Your task to perform on an android device: turn on translation in the chrome app Image 0: 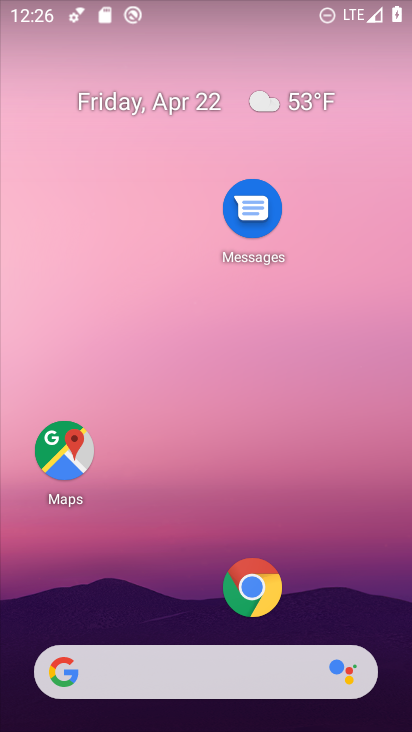
Step 0: click (240, 585)
Your task to perform on an android device: turn on translation in the chrome app Image 1: 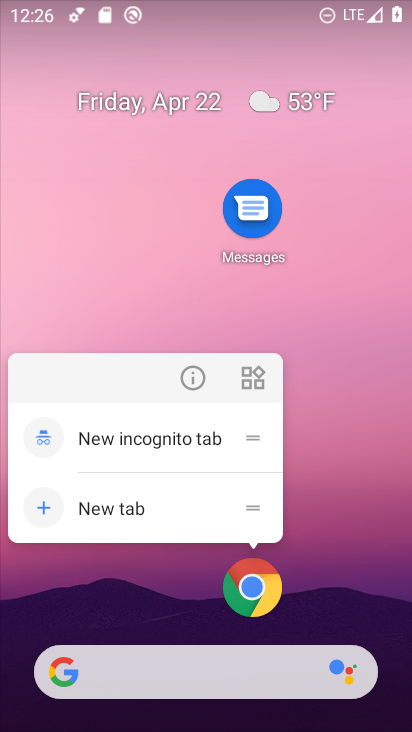
Step 1: click (184, 370)
Your task to perform on an android device: turn on translation in the chrome app Image 2: 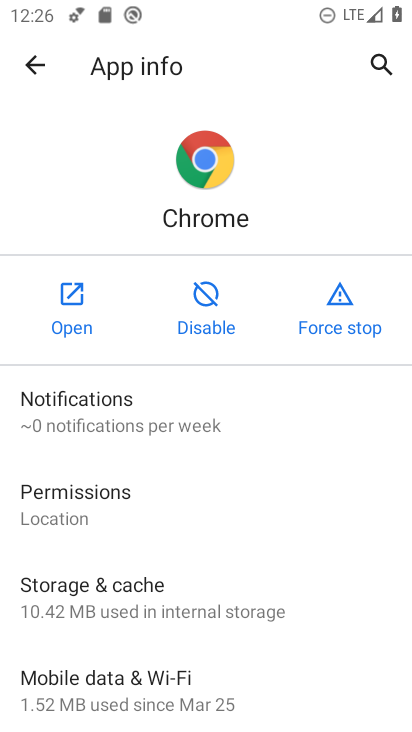
Step 2: click (74, 302)
Your task to perform on an android device: turn on translation in the chrome app Image 3: 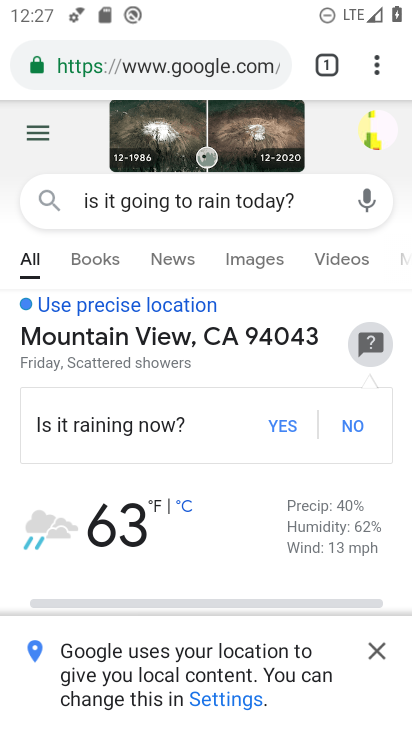
Step 3: click (377, 63)
Your task to perform on an android device: turn on translation in the chrome app Image 4: 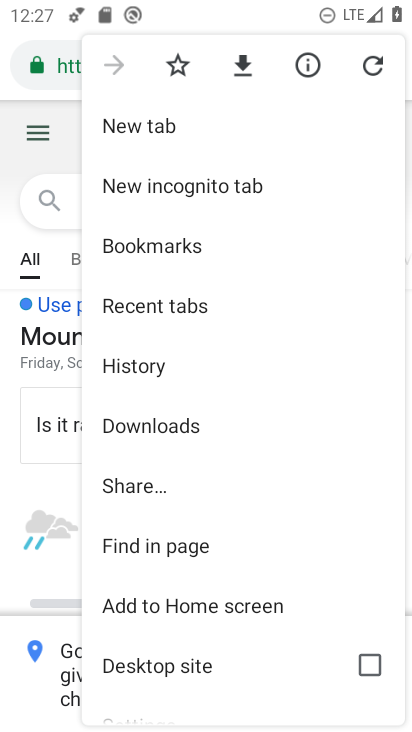
Step 4: drag from (148, 624) to (141, 413)
Your task to perform on an android device: turn on translation in the chrome app Image 5: 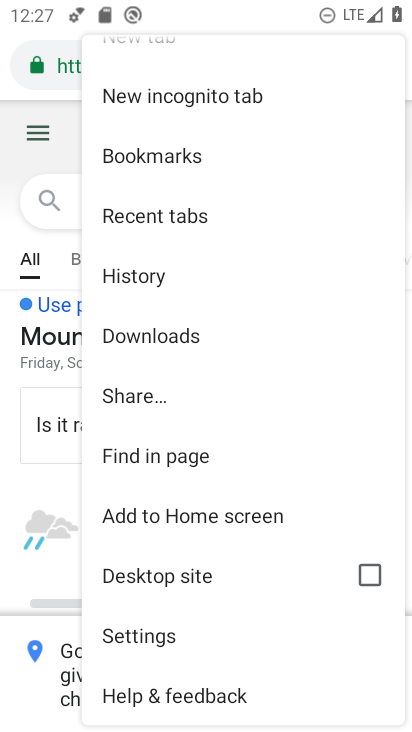
Step 5: click (142, 632)
Your task to perform on an android device: turn on translation in the chrome app Image 6: 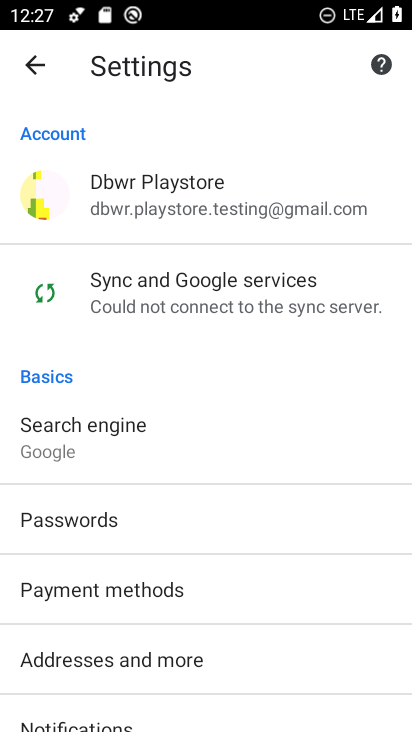
Step 6: drag from (146, 653) to (227, 292)
Your task to perform on an android device: turn on translation in the chrome app Image 7: 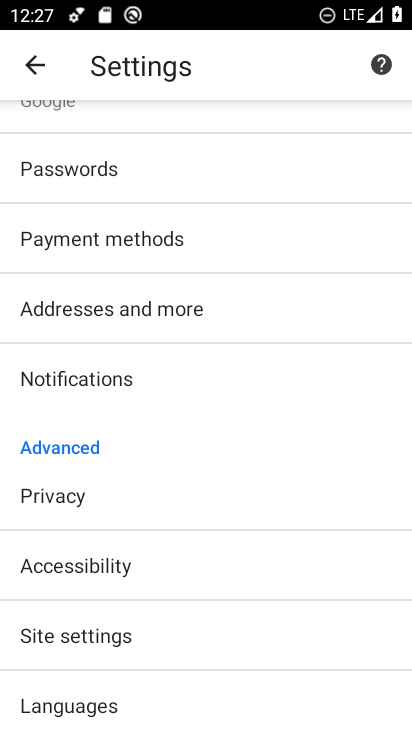
Step 7: click (98, 720)
Your task to perform on an android device: turn on translation in the chrome app Image 8: 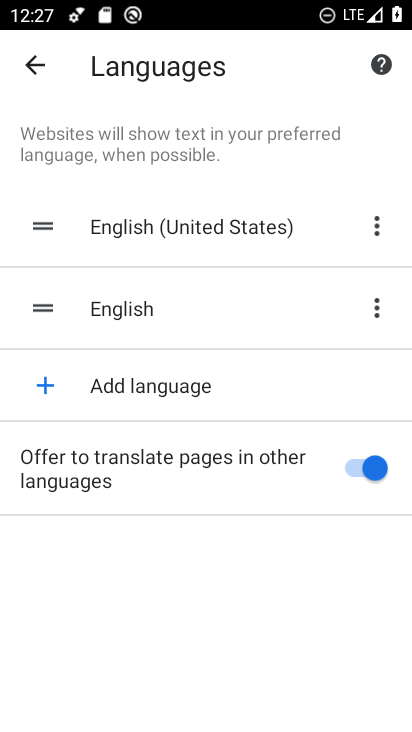
Step 8: task complete